Your task to perform on an android device: change notifications settings Image 0: 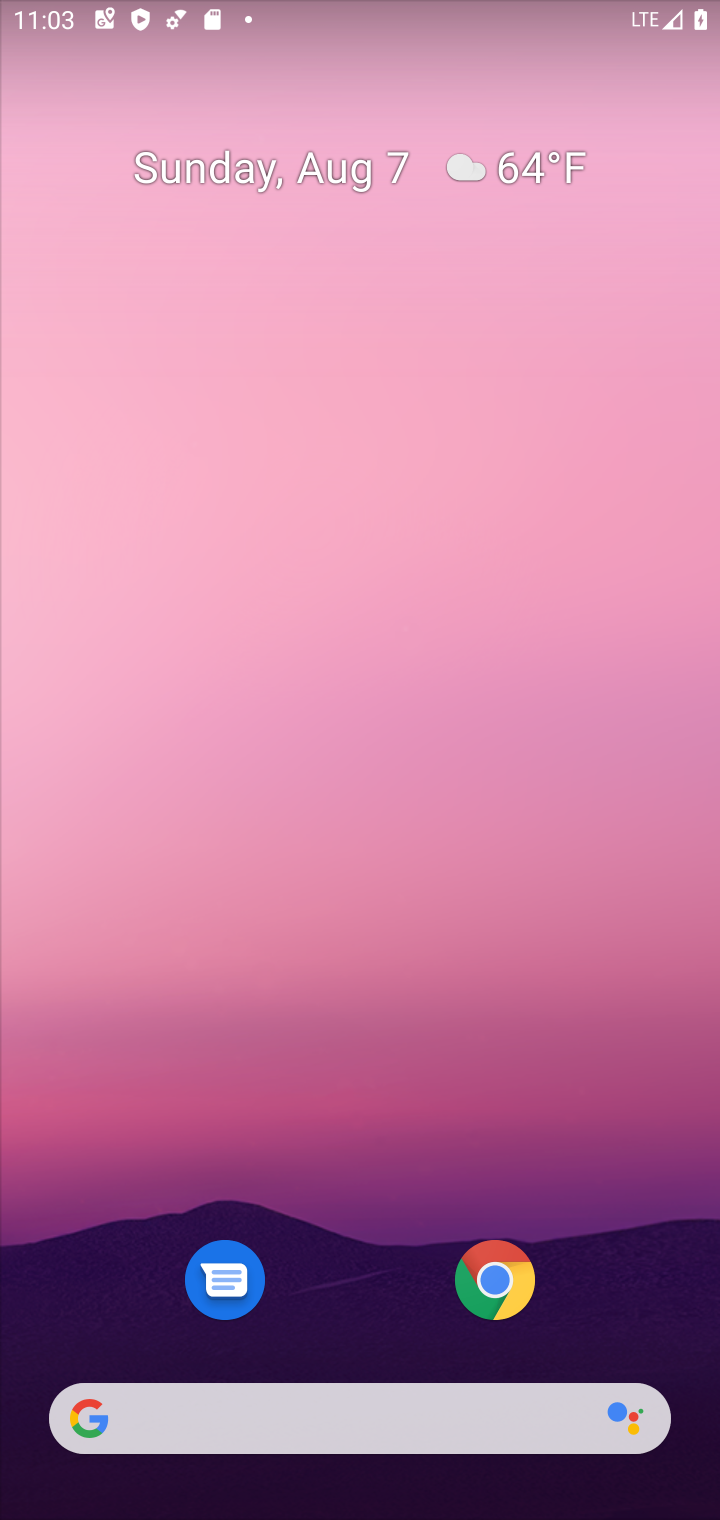
Step 0: drag from (318, 1277) to (442, 136)
Your task to perform on an android device: change notifications settings Image 1: 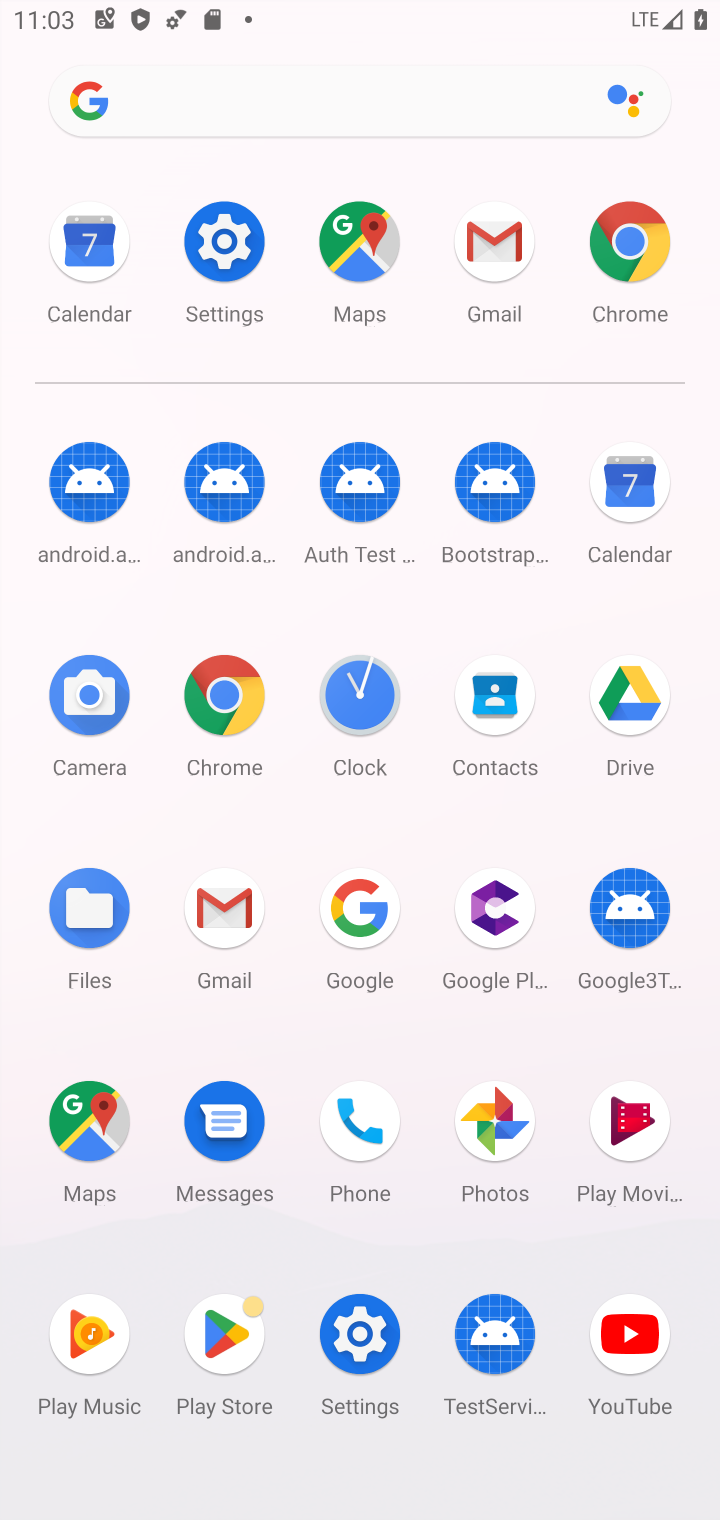
Step 1: click (169, 275)
Your task to perform on an android device: change notifications settings Image 2: 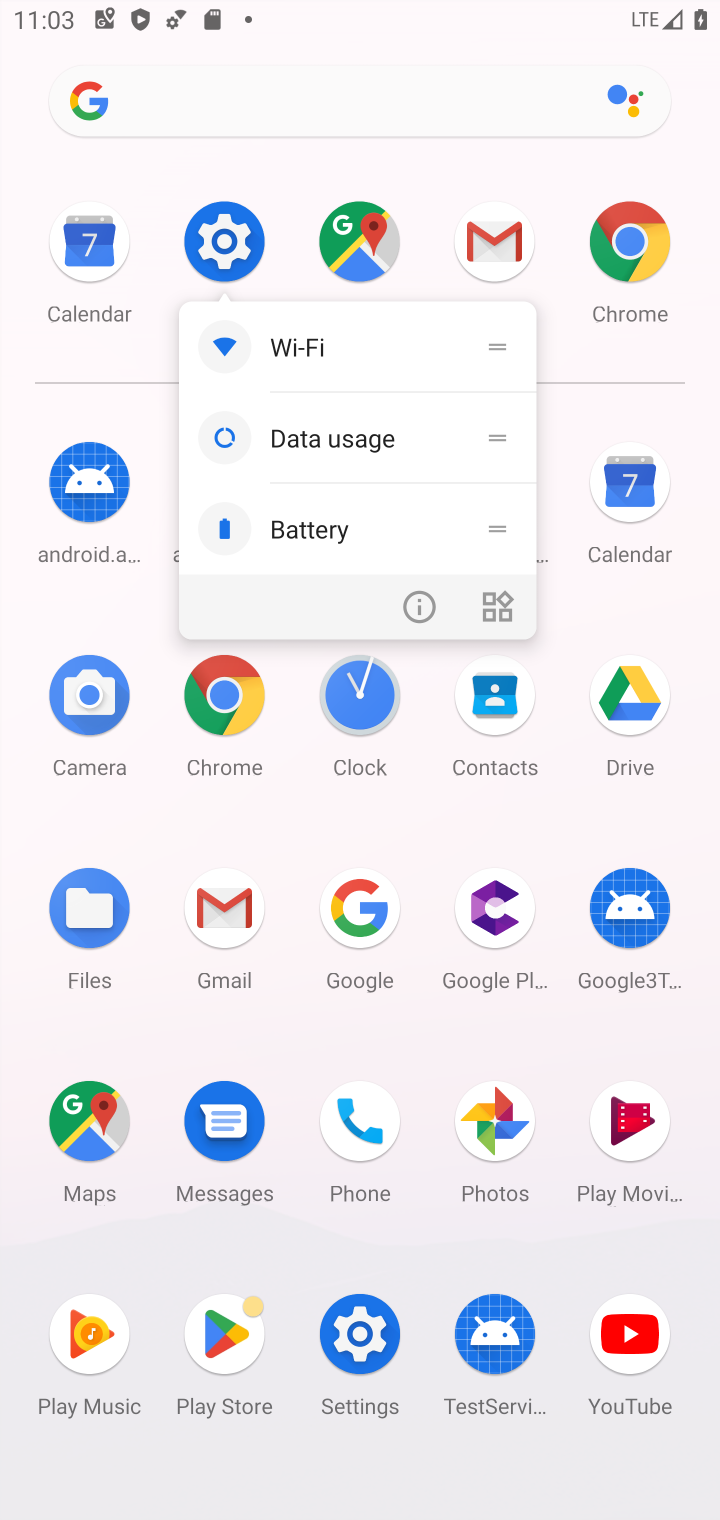
Step 2: click (196, 245)
Your task to perform on an android device: change notifications settings Image 3: 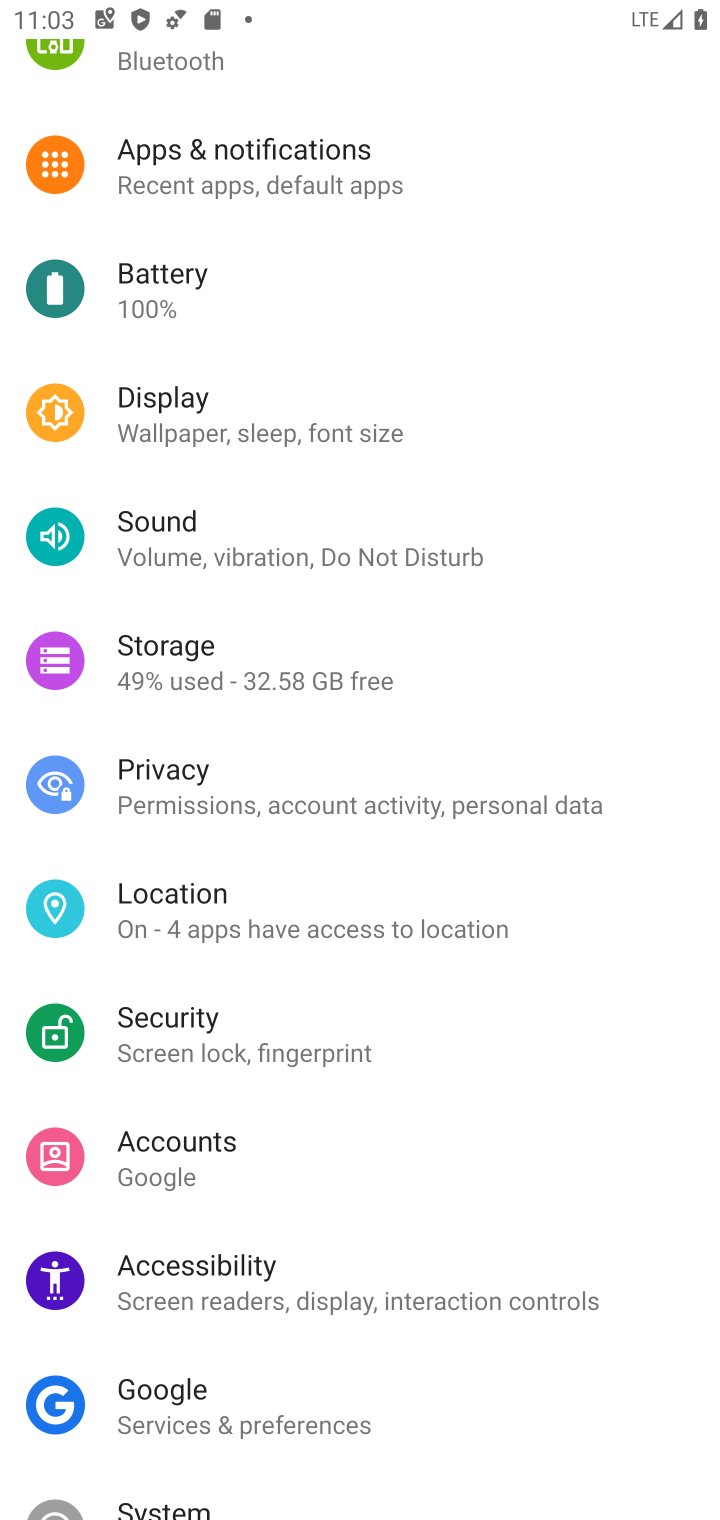
Step 3: click (277, 188)
Your task to perform on an android device: change notifications settings Image 4: 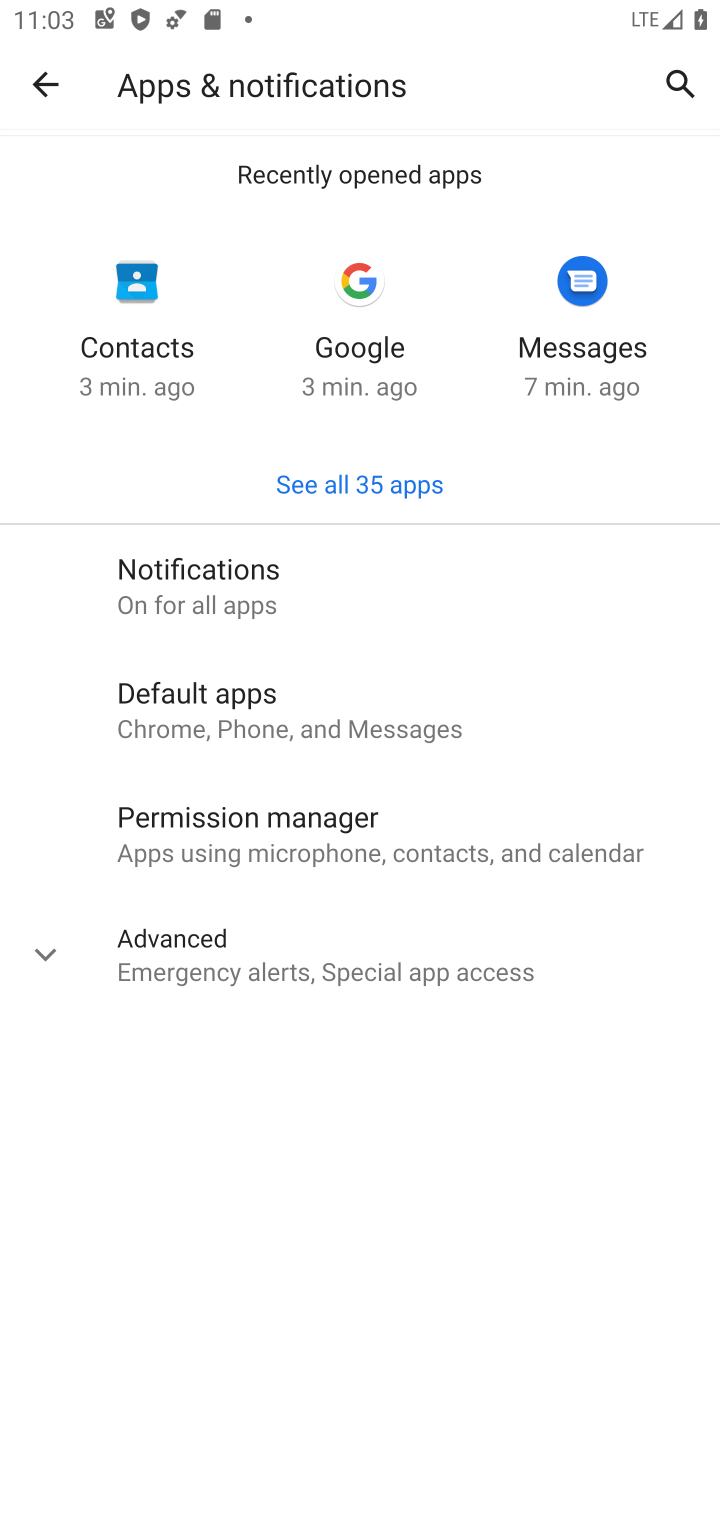
Step 4: click (241, 557)
Your task to perform on an android device: change notifications settings Image 5: 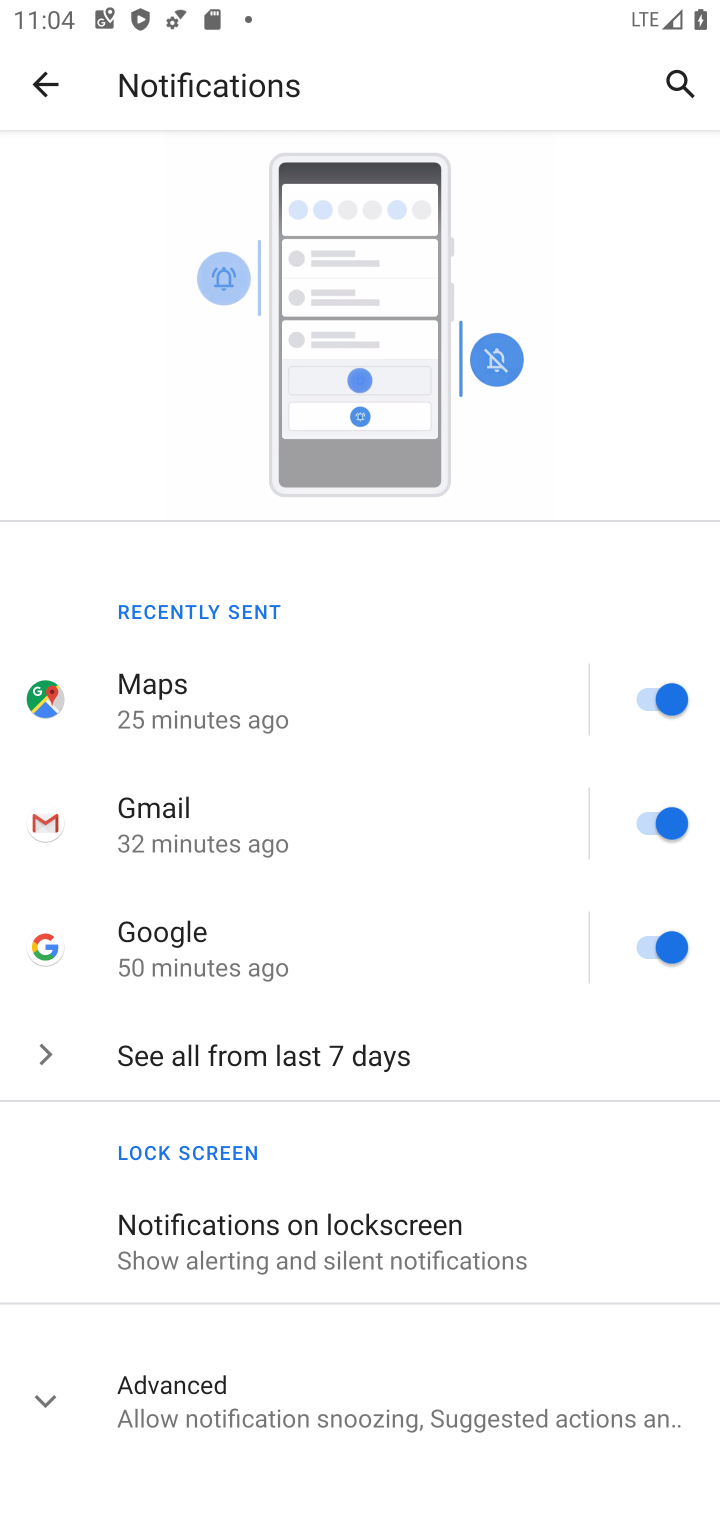
Step 5: drag from (443, 1316) to (447, 584)
Your task to perform on an android device: change notifications settings Image 6: 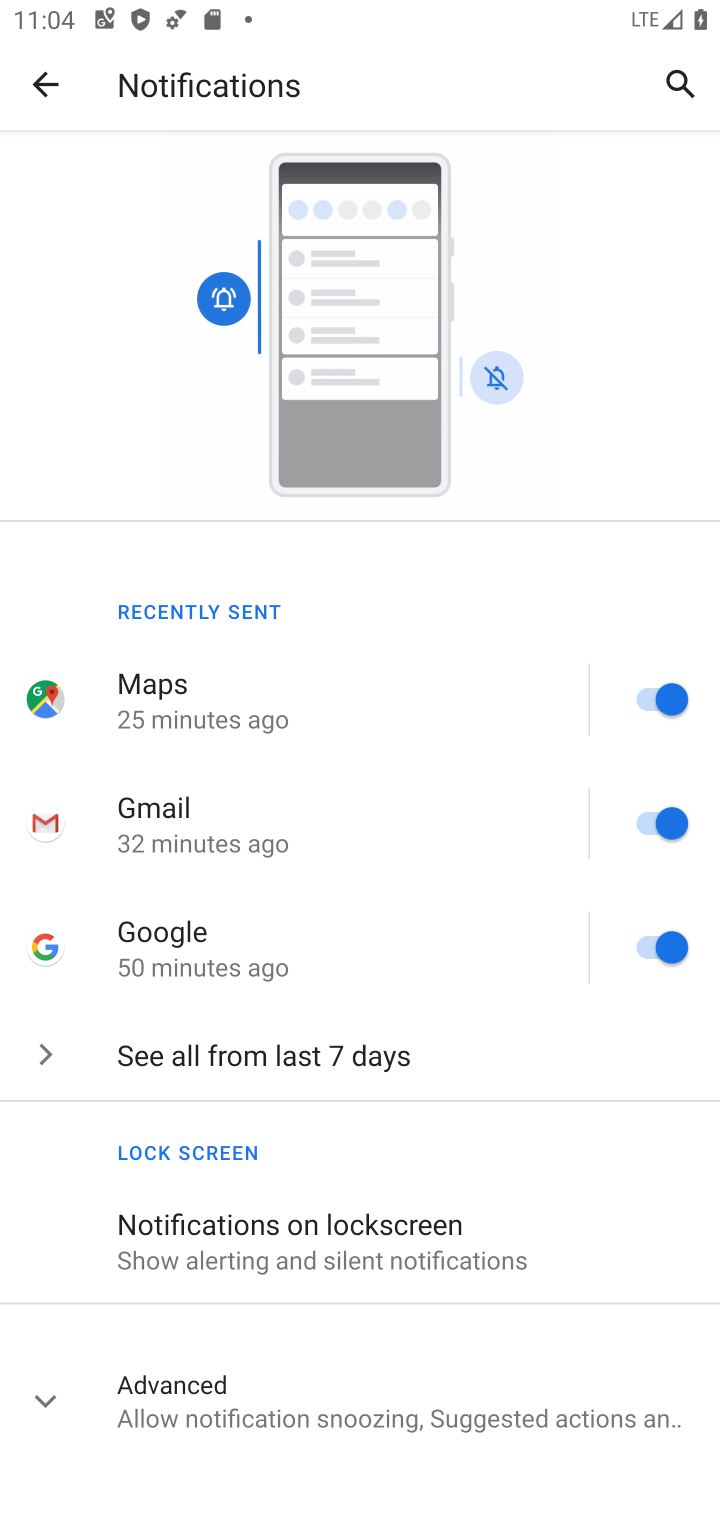
Step 6: click (223, 1390)
Your task to perform on an android device: change notifications settings Image 7: 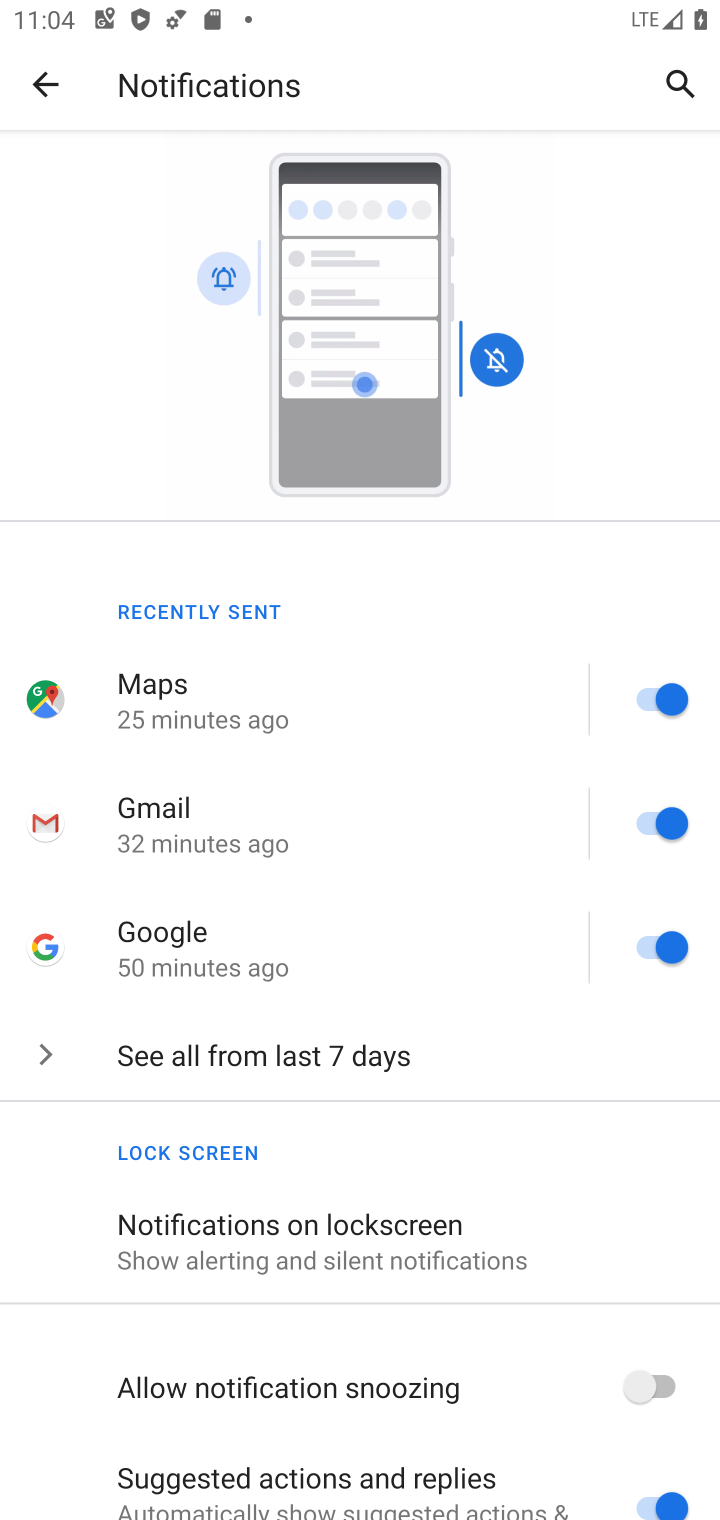
Step 7: drag from (359, 1371) to (461, 564)
Your task to perform on an android device: change notifications settings Image 8: 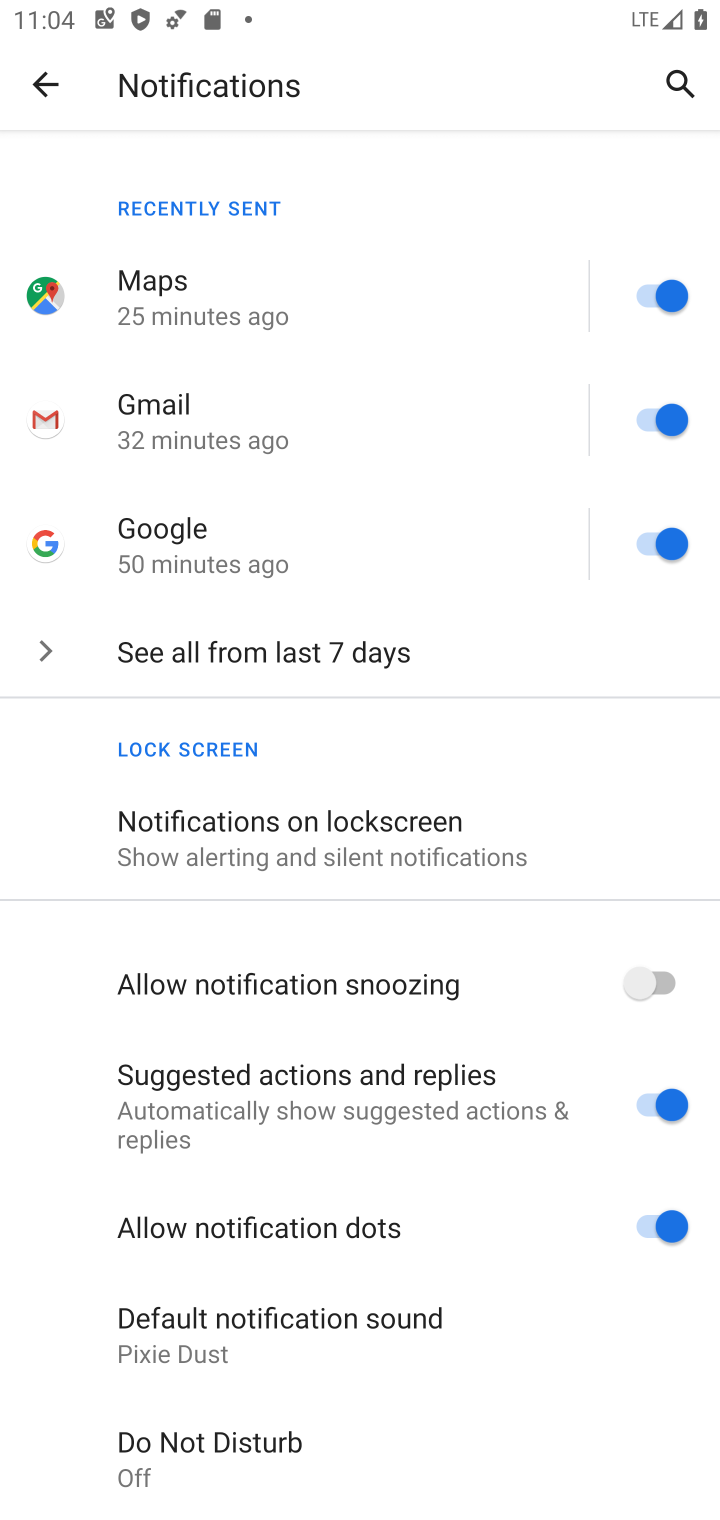
Step 8: click (635, 970)
Your task to perform on an android device: change notifications settings Image 9: 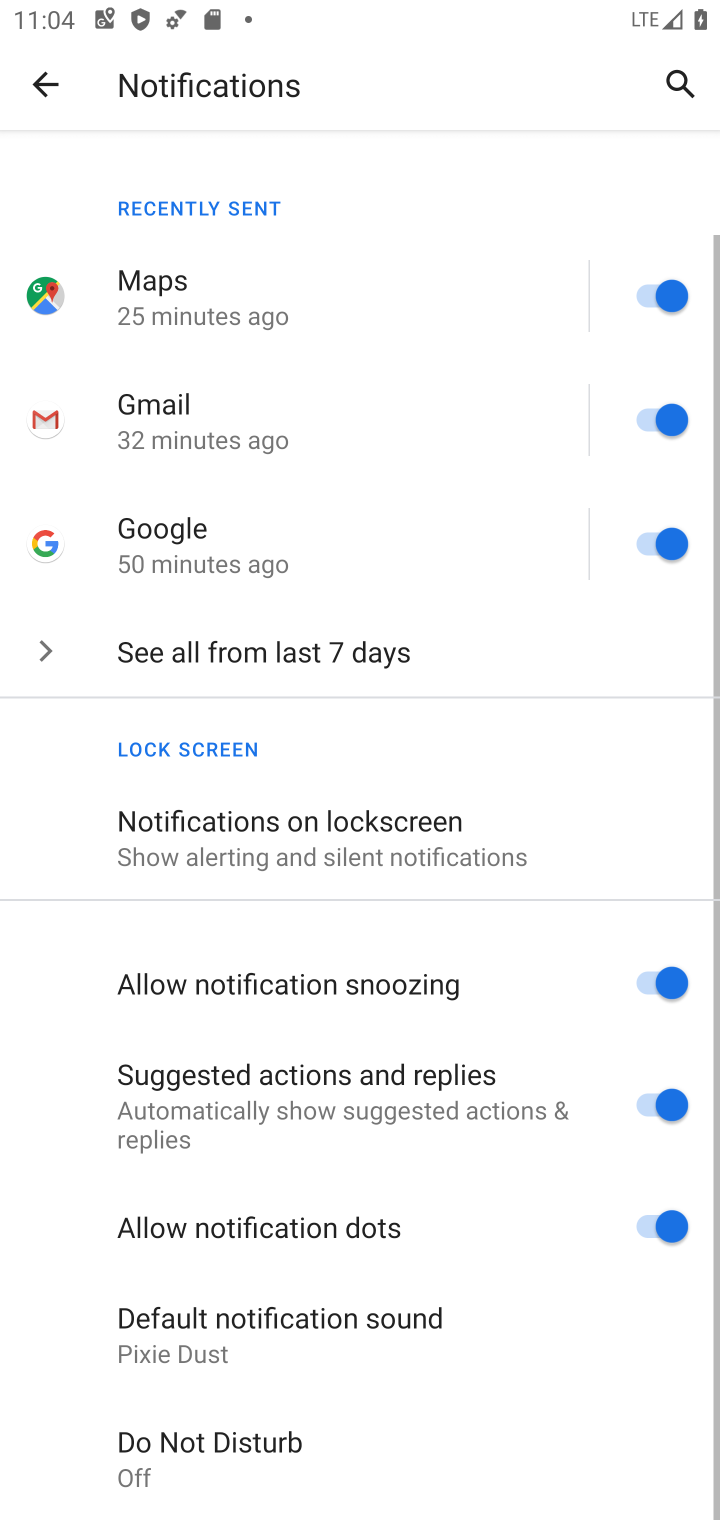
Step 9: task complete